Your task to perform on an android device: show emergency info Image 0: 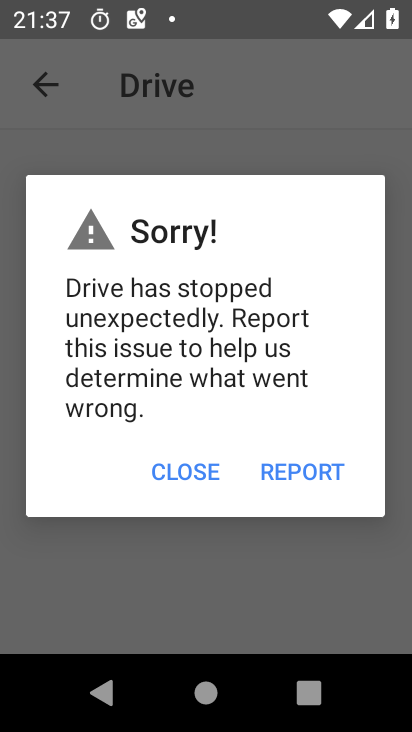
Step 0: click (181, 472)
Your task to perform on an android device: show emergency info Image 1: 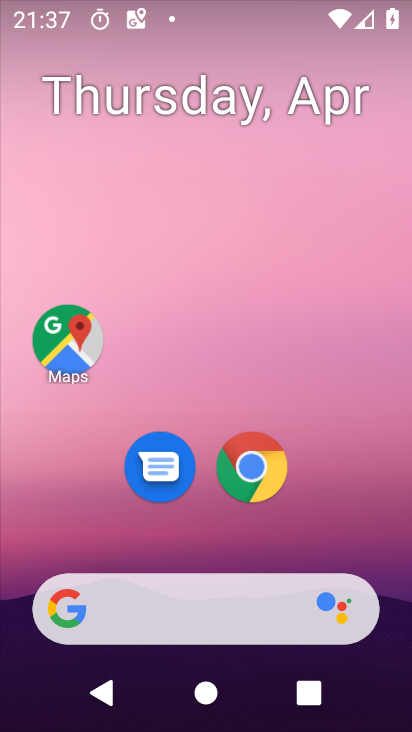
Step 1: press home button
Your task to perform on an android device: show emergency info Image 2: 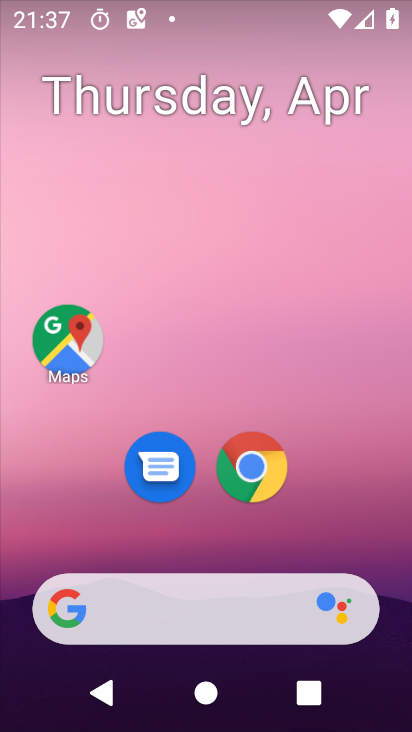
Step 2: drag from (211, 556) to (204, 17)
Your task to perform on an android device: show emergency info Image 3: 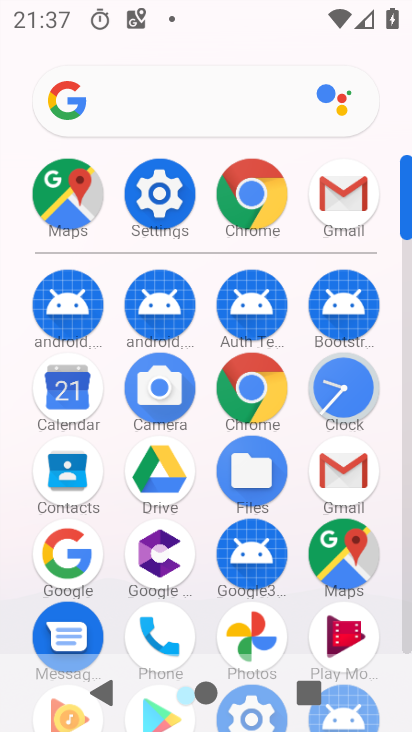
Step 3: click (163, 184)
Your task to perform on an android device: show emergency info Image 4: 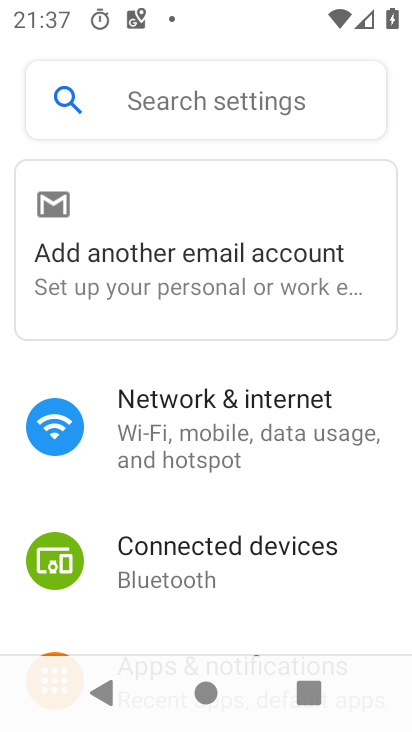
Step 4: drag from (201, 544) to (156, 60)
Your task to perform on an android device: show emergency info Image 5: 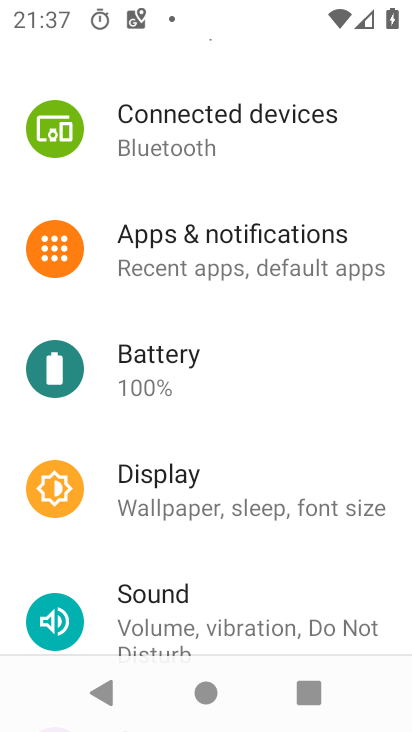
Step 5: drag from (151, 586) to (148, 126)
Your task to perform on an android device: show emergency info Image 6: 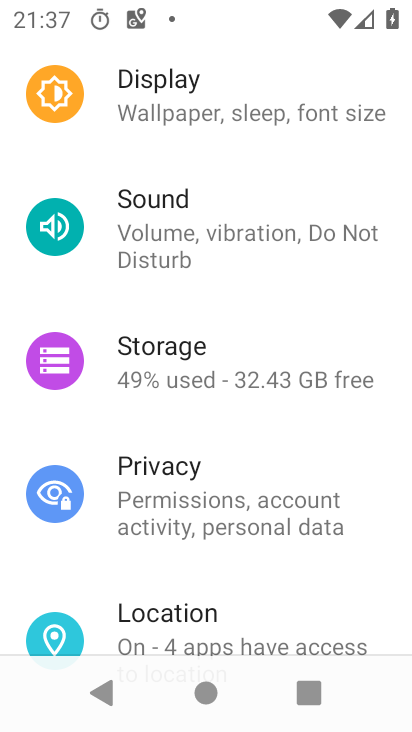
Step 6: drag from (177, 607) to (160, 137)
Your task to perform on an android device: show emergency info Image 7: 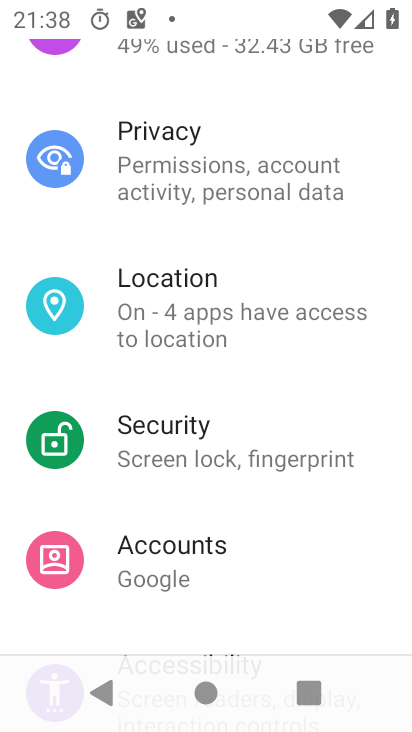
Step 7: drag from (206, 558) to (184, 7)
Your task to perform on an android device: show emergency info Image 8: 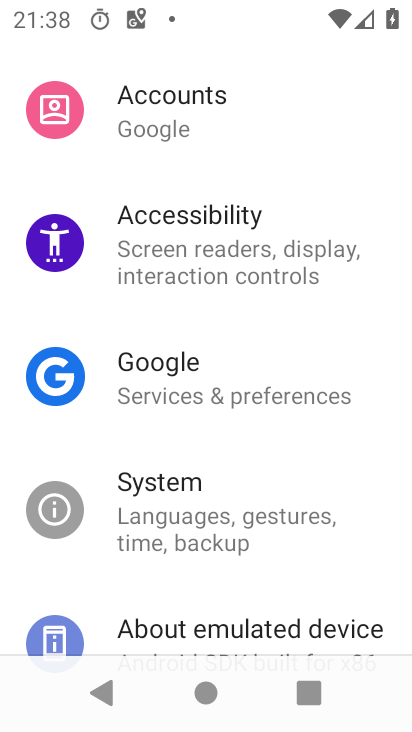
Step 8: click (171, 631)
Your task to perform on an android device: show emergency info Image 9: 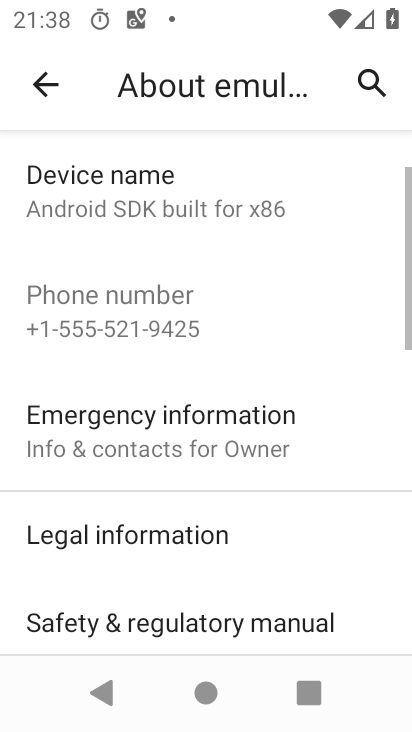
Step 9: click (206, 402)
Your task to perform on an android device: show emergency info Image 10: 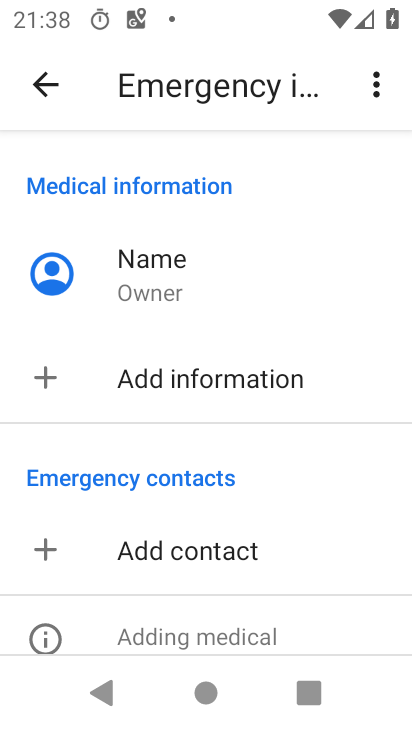
Step 10: task complete